Your task to perform on an android device: Go to display settings Image 0: 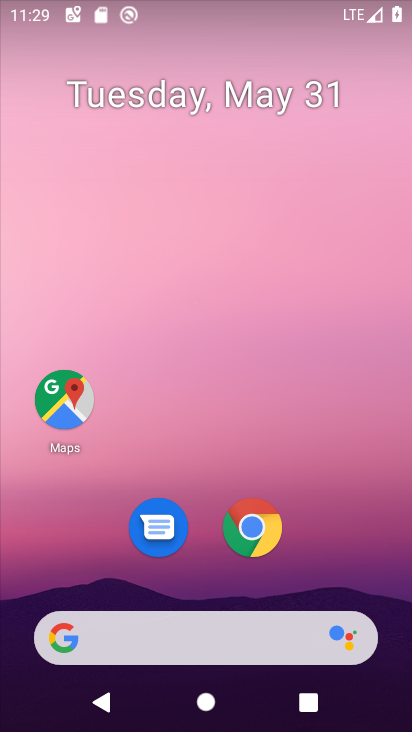
Step 0: drag from (356, 591) to (351, 7)
Your task to perform on an android device: Go to display settings Image 1: 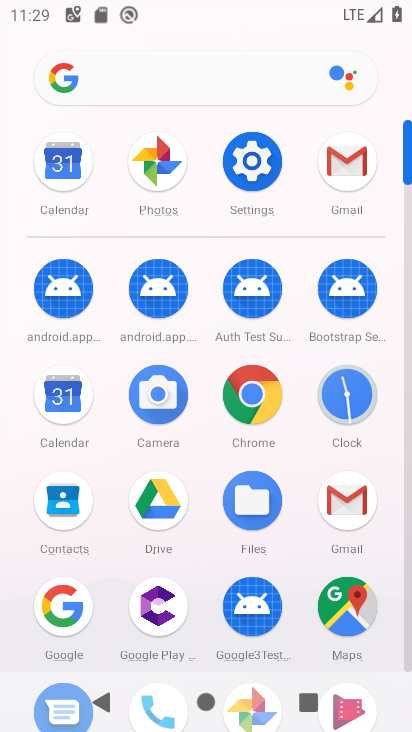
Step 1: click (251, 158)
Your task to perform on an android device: Go to display settings Image 2: 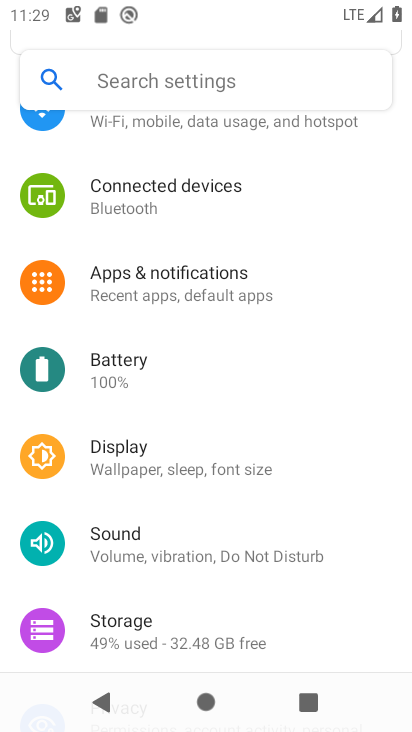
Step 2: click (123, 460)
Your task to perform on an android device: Go to display settings Image 3: 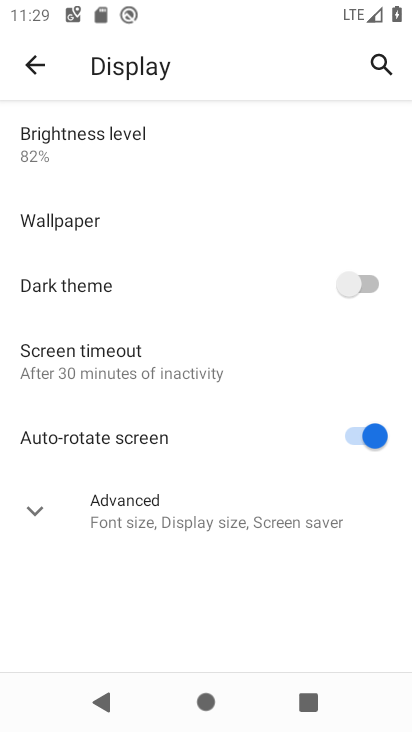
Step 3: task complete